Your task to perform on an android device: Go to accessibility settings Image 0: 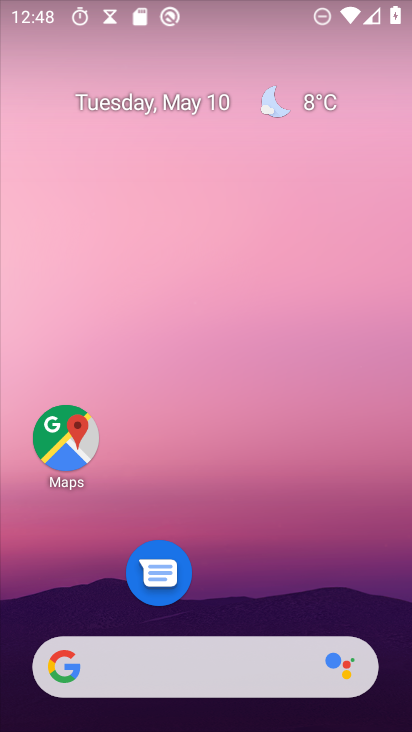
Step 0: drag from (251, 590) to (300, 72)
Your task to perform on an android device: Go to accessibility settings Image 1: 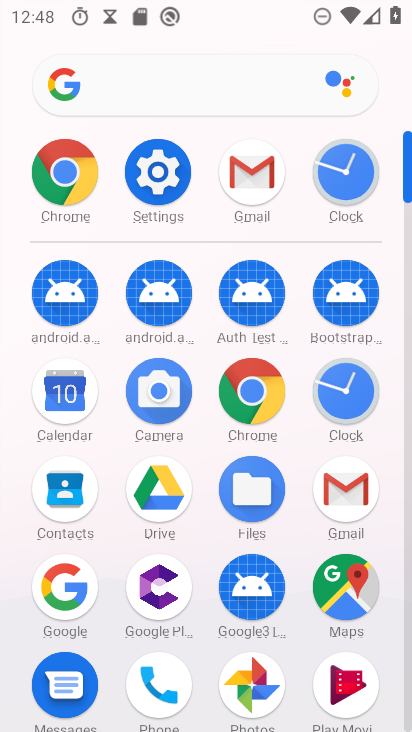
Step 1: click (164, 203)
Your task to perform on an android device: Go to accessibility settings Image 2: 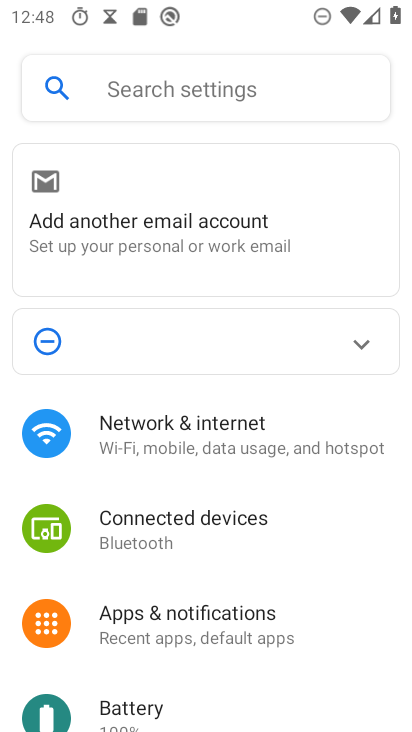
Step 2: drag from (202, 579) to (268, 91)
Your task to perform on an android device: Go to accessibility settings Image 3: 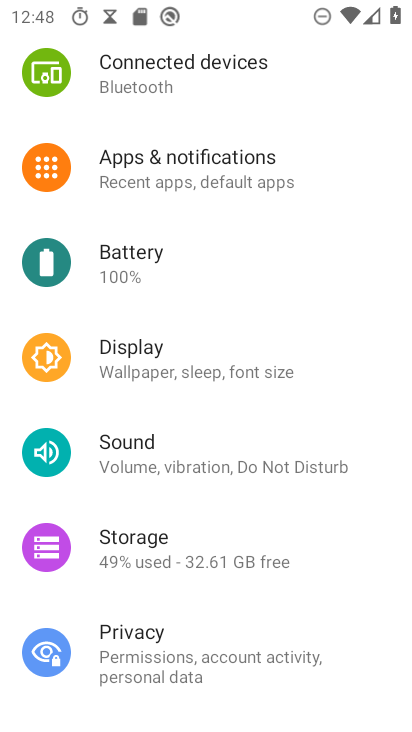
Step 3: drag from (190, 563) to (298, 80)
Your task to perform on an android device: Go to accessibility settings Image 4: 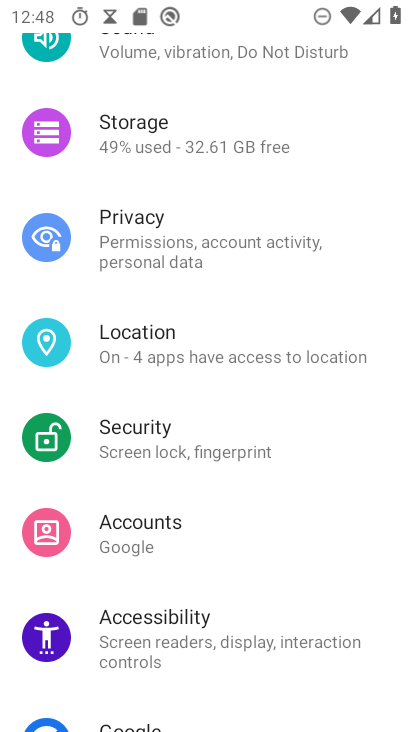
Step 4: click (188, 637)
Your task to perform on an android device: Go to accessibility settings Image 5: 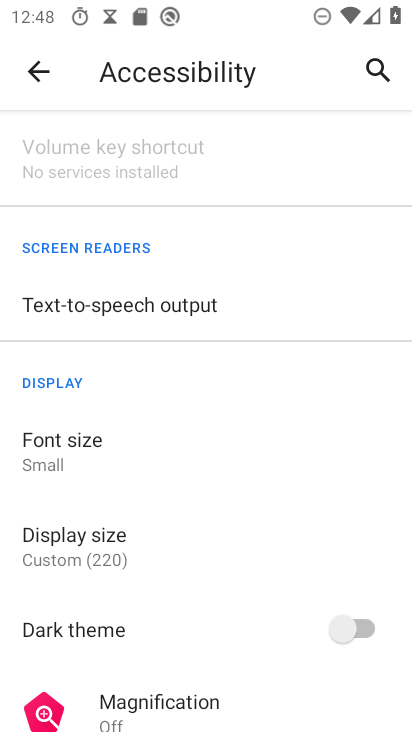
Step 5: task complete